Your task to perform on an android device: Open calendar and show me the third week of next month Image 0: 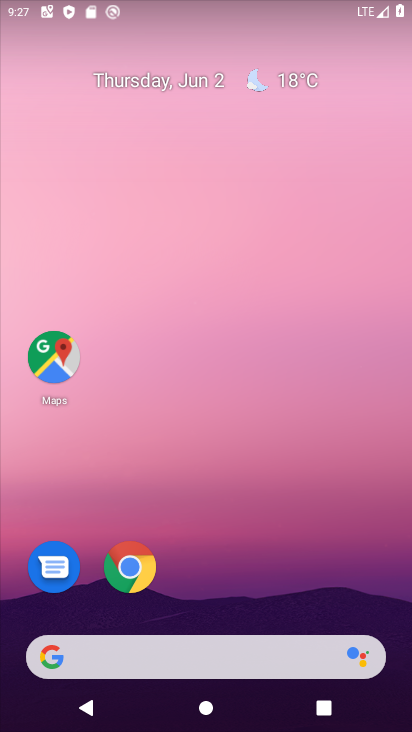
Step 0: drag from (250, 595) to (313, 26)
Your task to perform on an android device: Open calendar and show me the third week of next month Image 1: 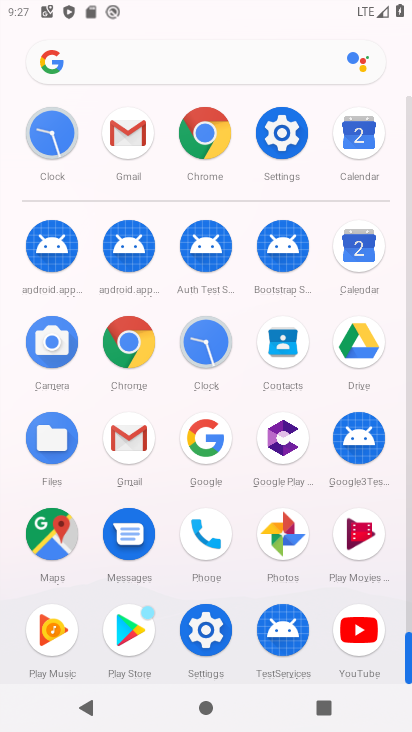
Step 1: click (358, 132)
Your task to perform on an android device: Open calendar and show me the third week of next month Image 2: 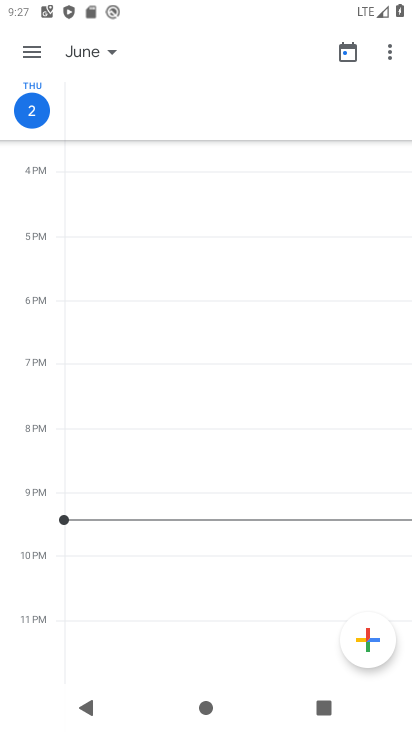
Step 2: click (44, 121)
Your task to perform on an android device: Open calendar and show me the third week of next month Image 3: 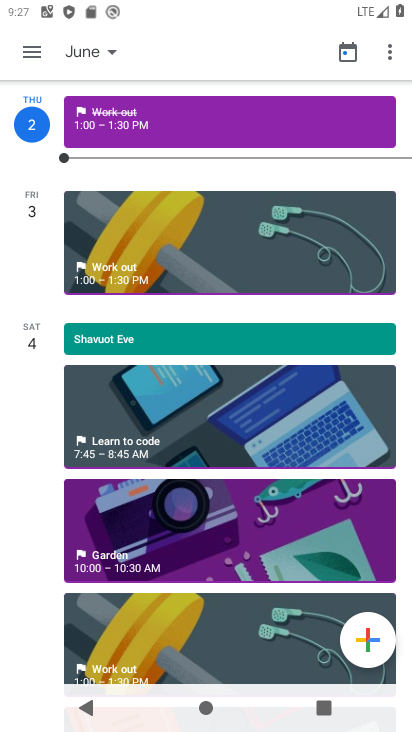
Step 3: drag from (37, 565) to (87, 212)
Your task to perform on an android device: Open calendar and show me the third week of next month Image 4: 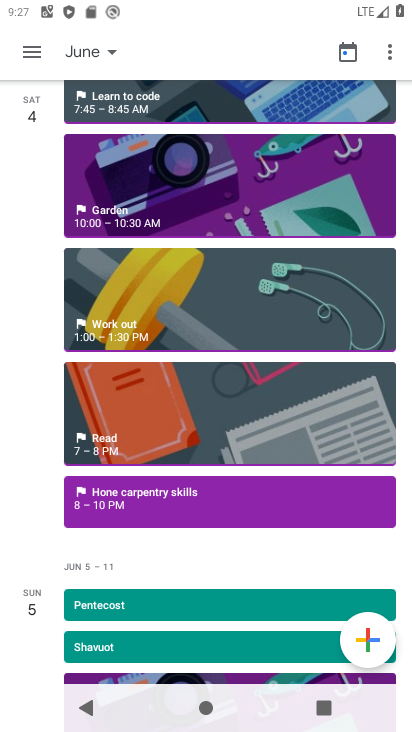
Step 4: click (108, 48)
Your task to perform on an android device: Open calendar and show me the third week of next month Image 5: 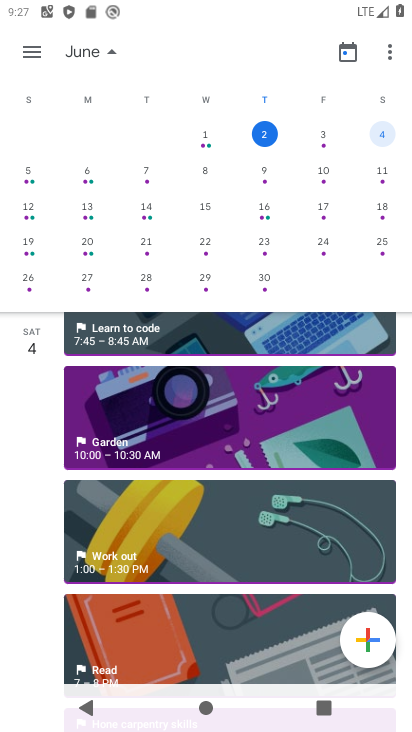
Step 5: drag from (319, 192) to (8, 196)
Your task to perform on an android device: Open calendar and show me the third week of next month Image 6: 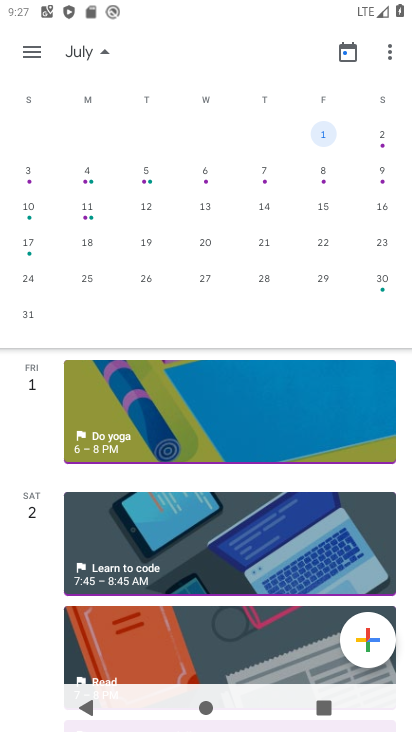
Step 6: click (24, 243)
Your task to perform on an android device: Open calendar and show me the third week of next month Image 7: 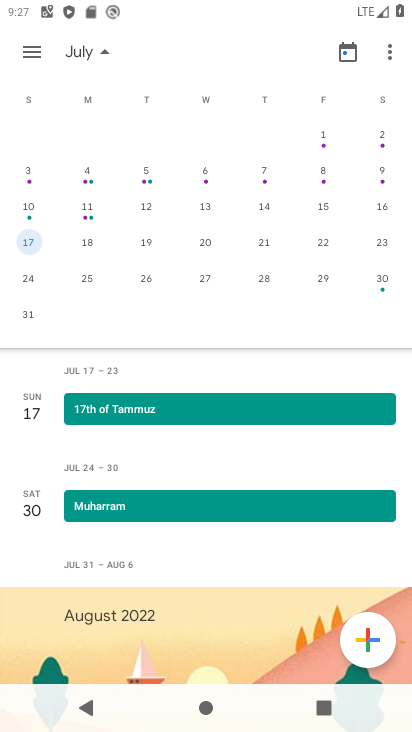
Step 7: click (99, 52)
Your task to perform on an android device: Open calendar and show me the third week of next month Image 8: 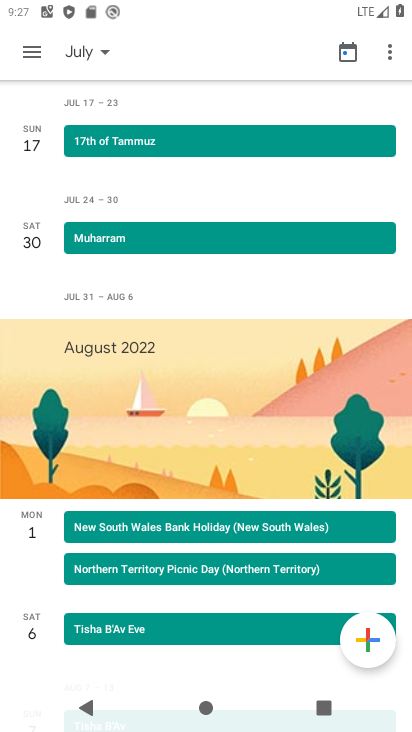
Step 8: task complete